Your task to perform on an android device: How much does a 3 bedroom apartment rent for in Los Angeles? Image 0: 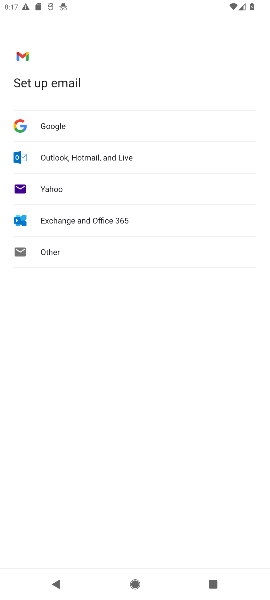
Step 0: press home button
Your task to perform on an android device: How much does a 3 bedroom apartment rent for in Los Angeles? Image 1: 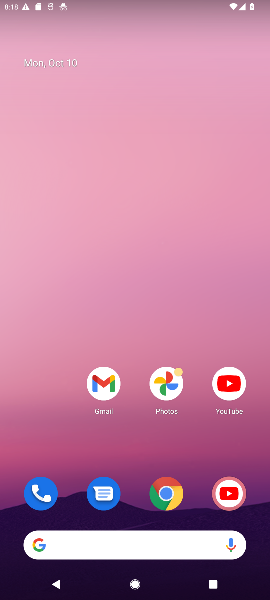
Step 1: drag from (143, 510) to (160, 45)
Your task to perform on an android device: How much does a 3 bedroom apartment rent for in Los Angeles? Image 2: 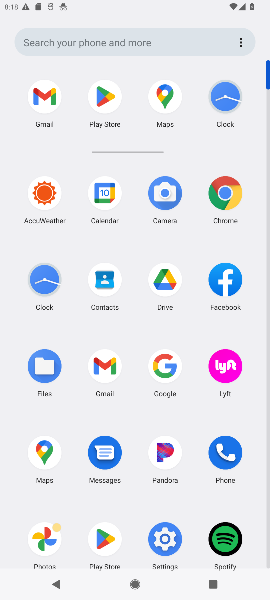
Step 2: click (114, 32)
Your task to perform on an android device: How much does a 3 bedroom apartment rent for in Los Angeles? Image 3: 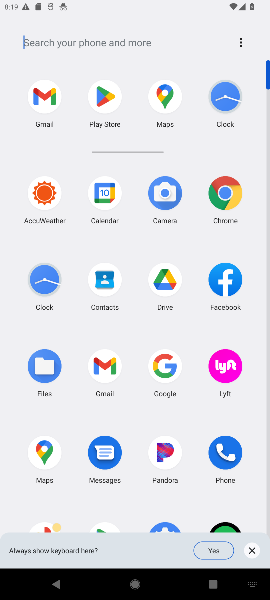
Step 3: type "How much does a 3 bedroom apartment rent for in Los Angeles?"
Your task to perform on an android device: How much does a 3 bedroom apartment rent for in Los Angeles? Image 4: 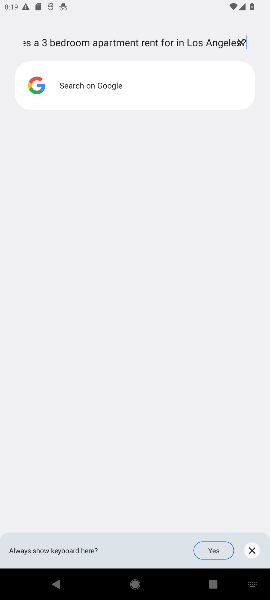
Step 4: click (75, 75)
Your task to perform on an android device: How much does a 3 bedroom apartment rent for in Los Angeles? Image 5: 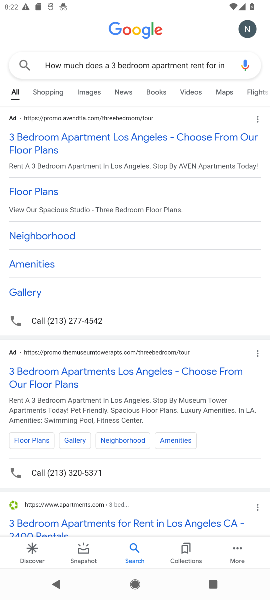
Step 5: task complete